Your task to perform on an android device: toggle show notifications on the lock screen Image 0: 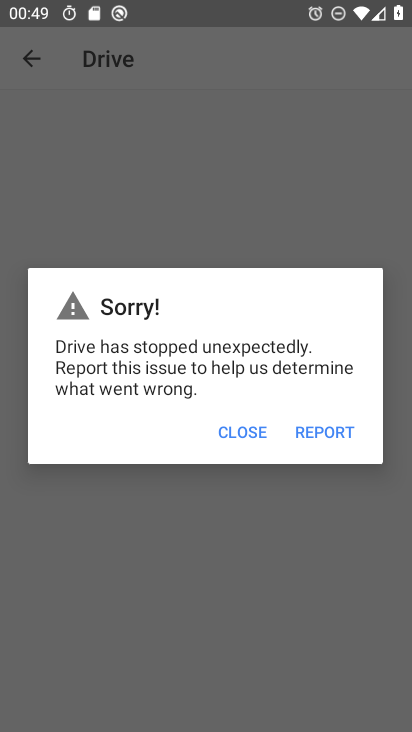
Step 0: press home button
Your task to perform on an android device: toggle show notifications on the lock screen Image 1: 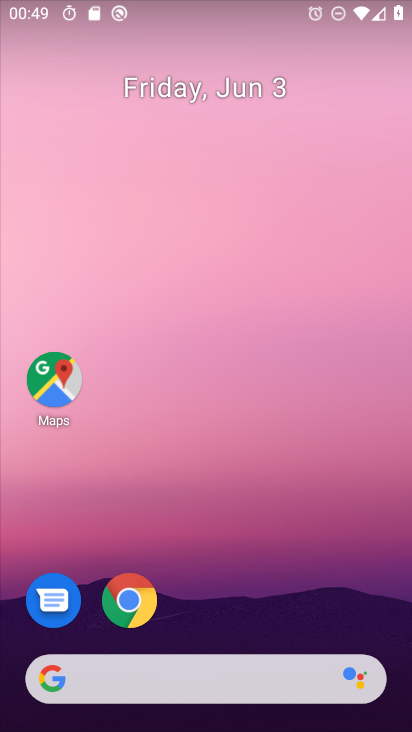
Step 1: drag from (244, 617) to (300, 85)
Your task to perform on an android device: toggle show notifications on the lock screen Image 2: 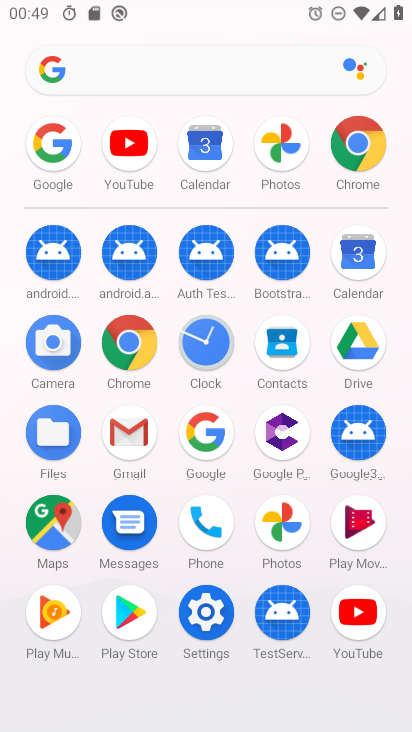
Step 2: click (209, 611)
Your task to perform on an android device: toggle show notifications on the lock screen Image 3: 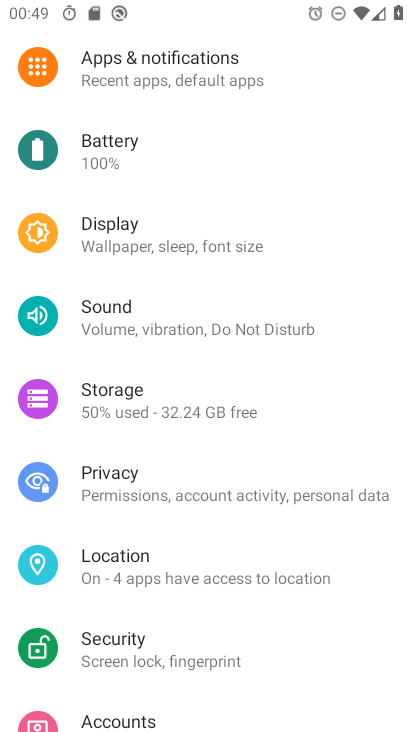
Step 3: click (153, 82)
Your task to perform on an android device: toggle show notifications on the lock screen Image 4: 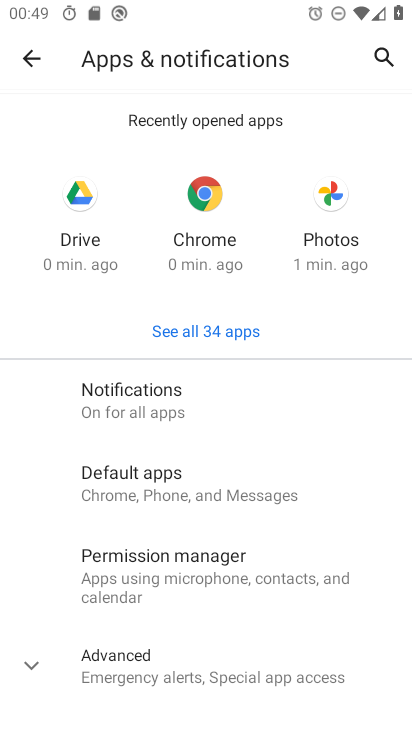
Step 4: click (159, 403)
Your task to perform on an android device: toggle show notifications on the lock screen Image 5: 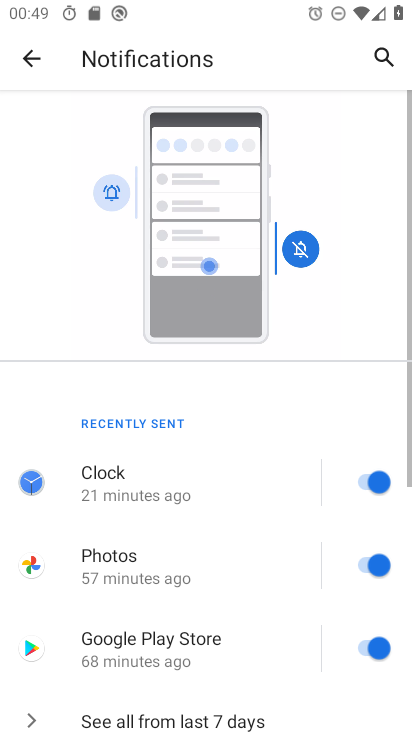
Step 5: drag from (218, 597) to (214, 155)
Your task to perform on an android device: toggle show notifications on the lock screen Image 6: 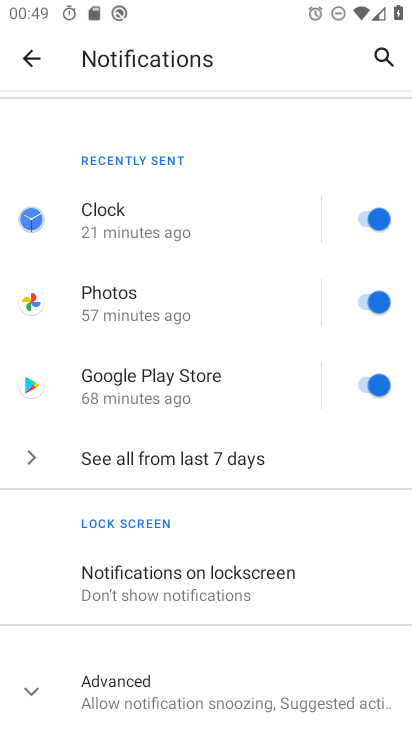
Step 6: click (185, 590)
Your task to perform on an android device: toggle show notifications on the lock screen Image 7: 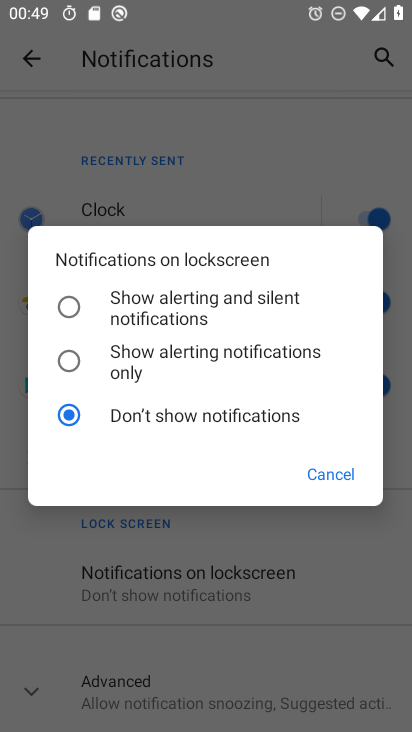
Step 7: click (66, 297)
Your task to perform on an android device: toggle show notifications on the lock screen Image 8: 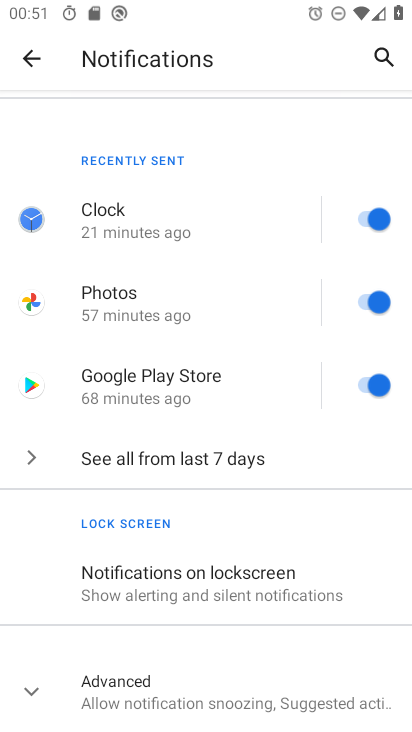
Step 8: task complete